Your task to perform on an android device: turn off wifi Image 0: 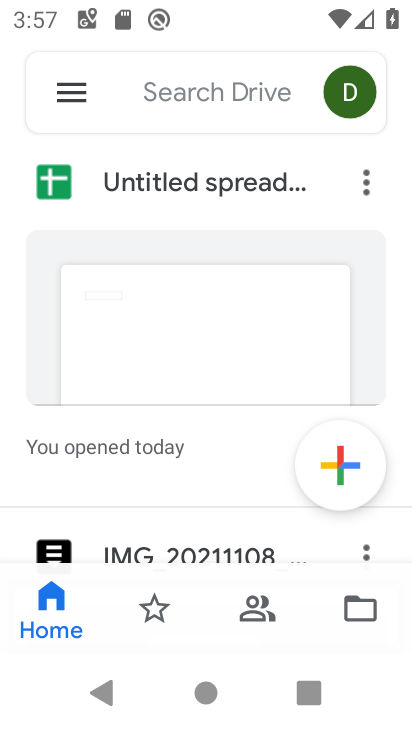
Step 0: press home button
Your task to perform on an android device: turn off wifi Image 1: 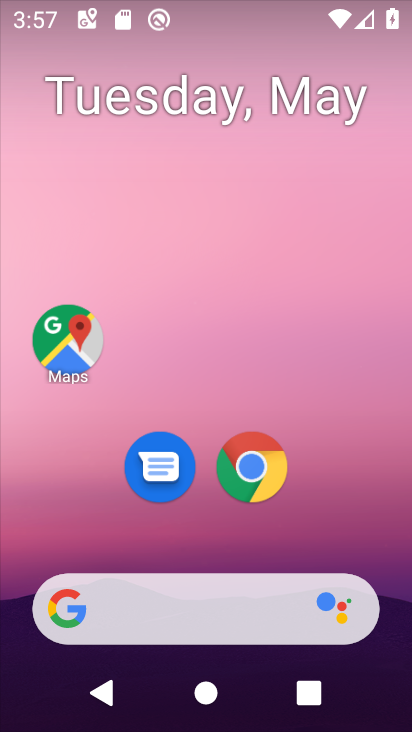
Step 1: drag from (286, 540) to (204, 142)
Your task to perform on an android device: turn off wifi Image 2: 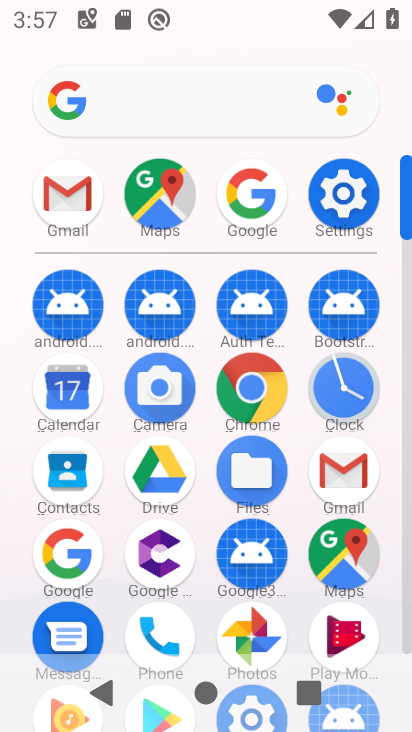
Step 2: click (332, 179)
Your task to perform on an android device: turn off wifi Image 3: 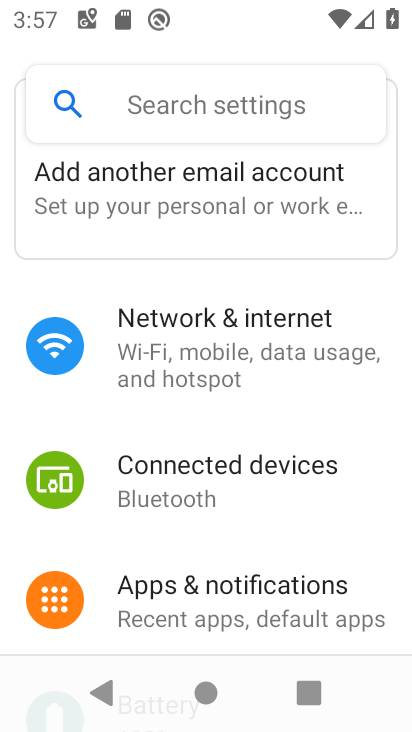
Step 3: click (173, 344)
Your task to perform on an android device: turn off wifi Image 4: 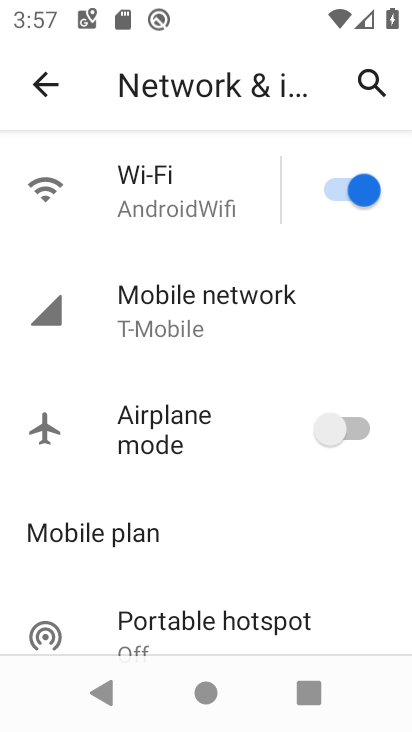
Step 4: task complete